Your task to perform on an android device: find which apps use the phone's location Image 0: 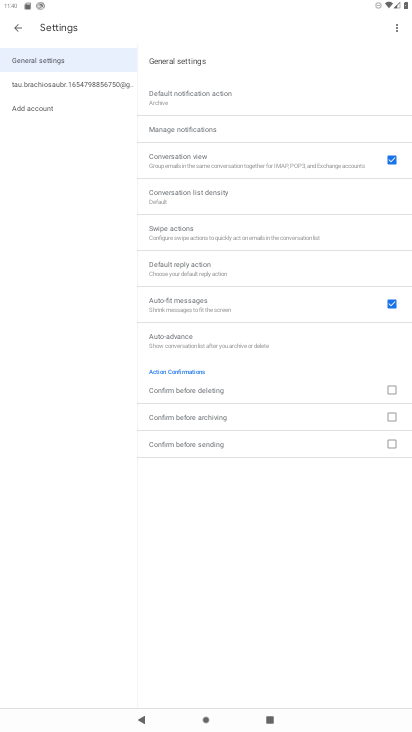
Step 0: press home button
Your task to perform on an android device: find which apps use the phone's location Image 1: 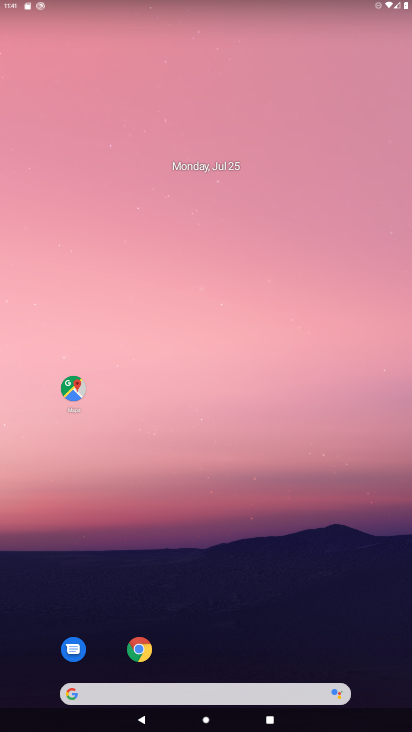
Step 1: drag from (375, 649) to (358, 184)
Your task to perform on an android device: find which apps use the phone's location Image 2: 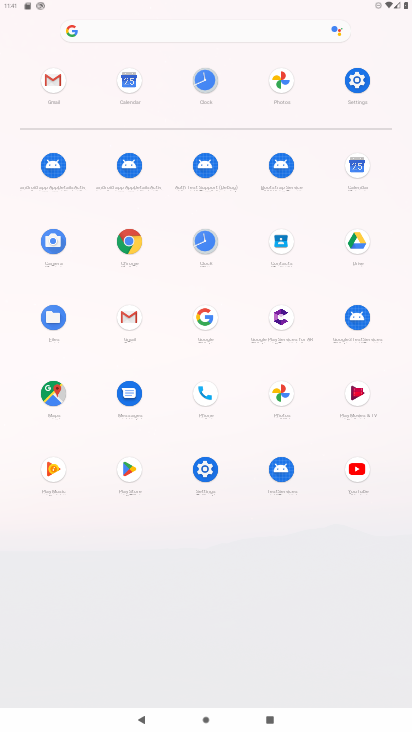
Step 2: click (203, 471)
Your task to perform on an android device: find which apps use the phone's location Image 3: 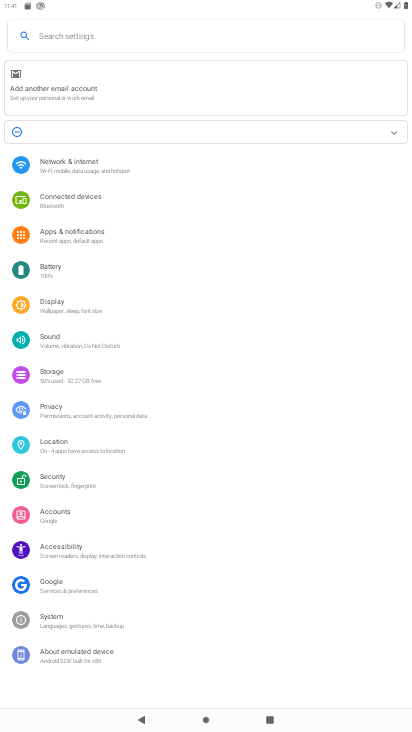
Step 3: click (58, 445)
Your task to perform on an android device: find which apps use the phone's location Image 4: 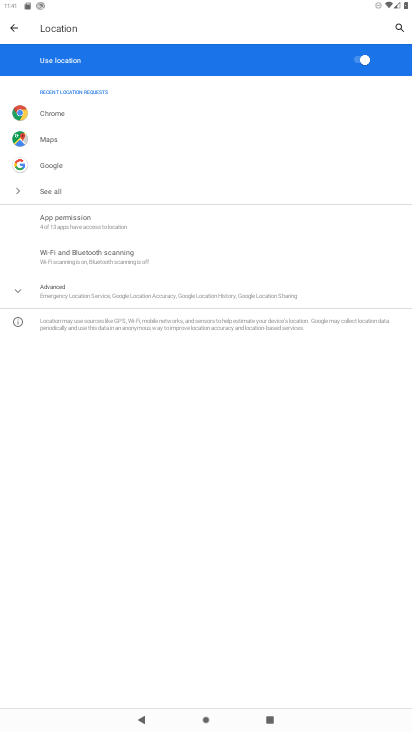
Step 4: click (63, 217)
Your task to perform on an android device: find which apps use the phone's location Image 5: 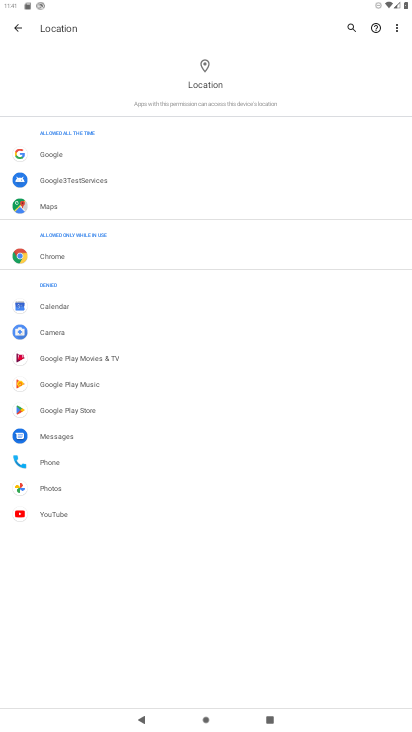
Step 5: click (43, 491)
Your task to perform on an android device: find which apps use the phone's location Image 6: 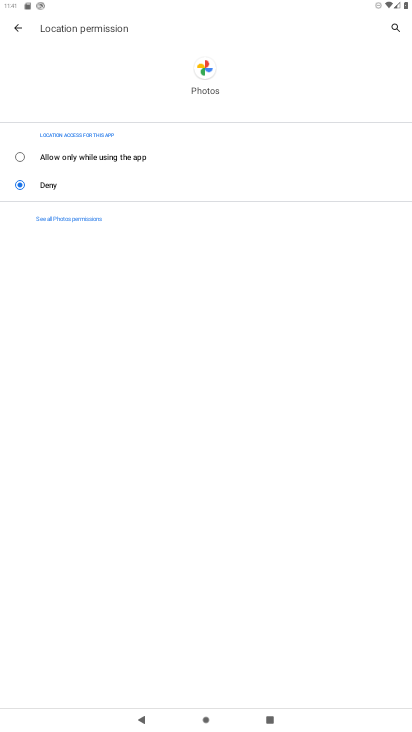
Step 6: task complete